Your task to perform on an android device: Go to calendar. Show me events next week Image 0: 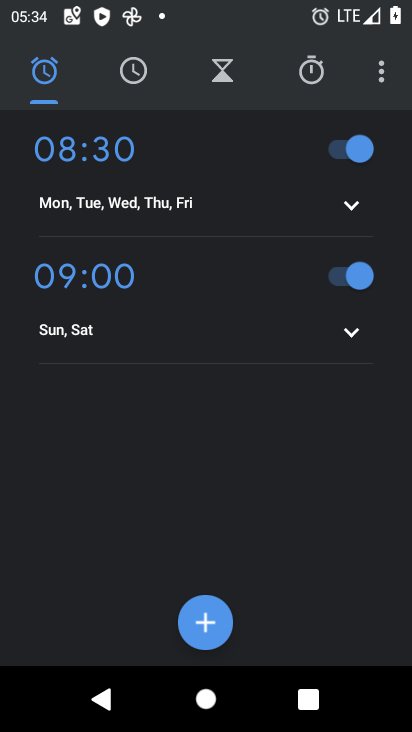
Step 0: press home button
Your task to perform on an android device: Go to calendar. Show me events next week Image 1: 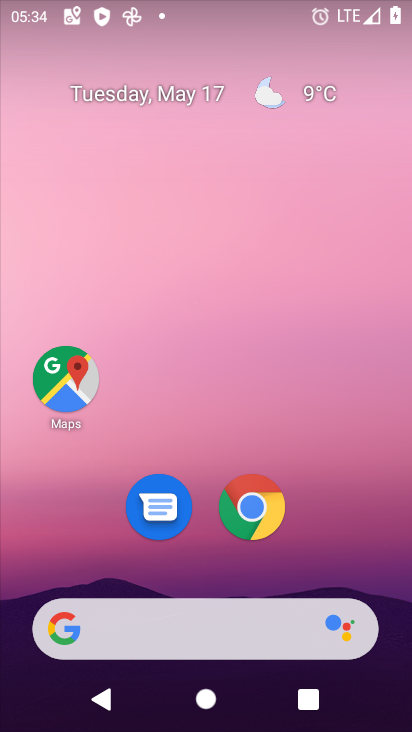
Step 1: click (166, 88)
Your task to perform on an android device: Go to calendar. Show me events next week Image 2: 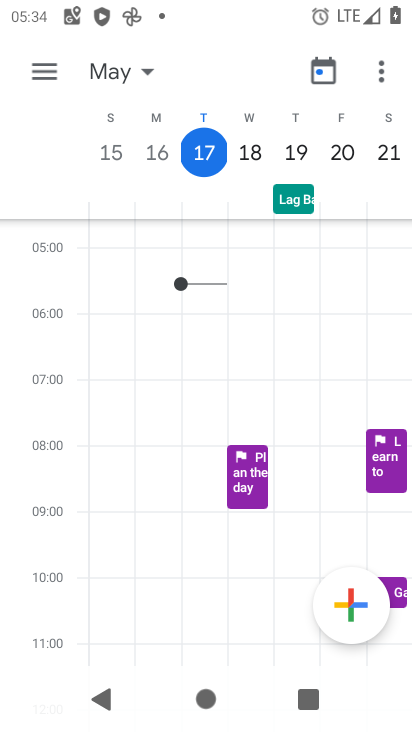
Step 2: click (133, 65)
Your task to perform on an android device: Go to calendar. Show me events next week Image 3: 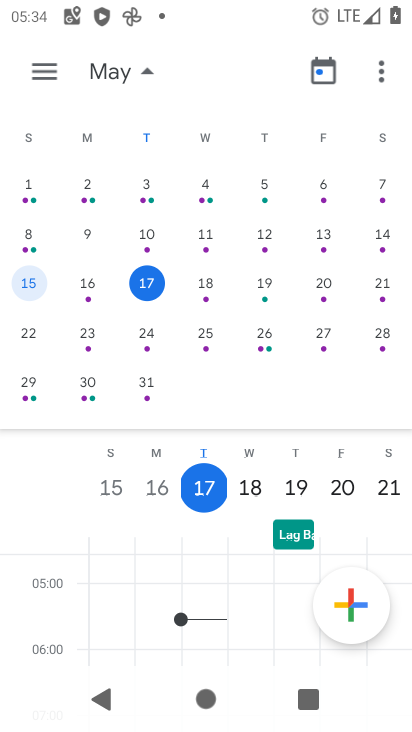
Step 3: click (30, 335)
Your task to perform on an android device: Go to calendar. Show me events next week Image 4: 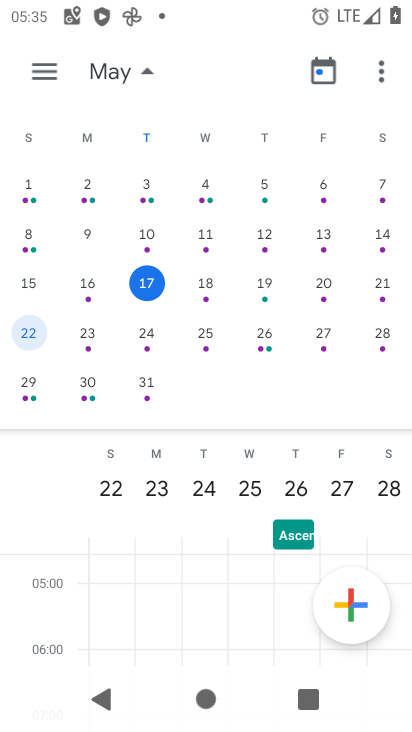
Step 4: task complete